Your task to perform on an android device: turn off notifications settings in the gmail app Image 0: 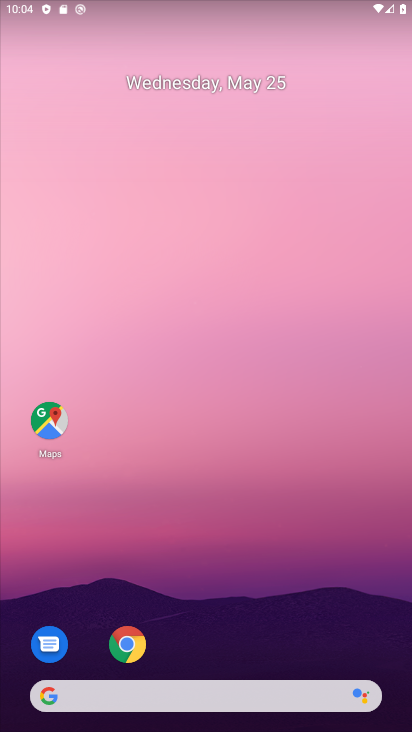
Step 0: drag from (234, 618) to (307, 164)
Your task to perform on an android device: turn off notifications settings in the gmail app Image 1: 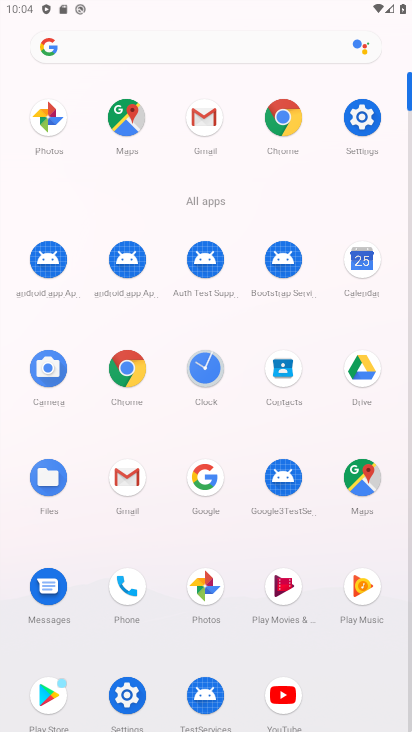
Step 1: click (208, 112)
Your task to perform on an android device: turn off notifications settings in the gmail app Image 2: 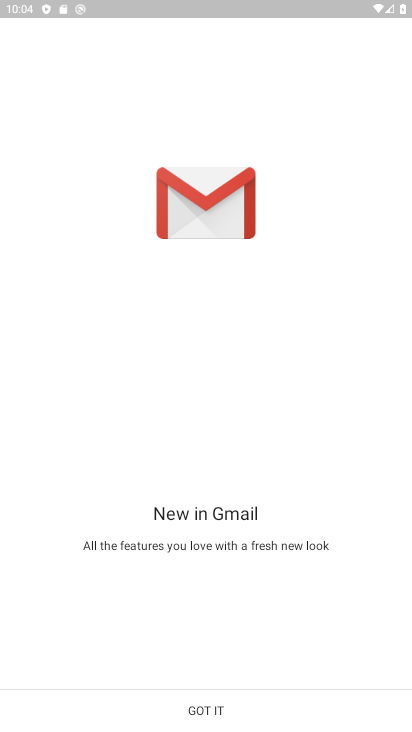
Step 2: click (212, 713)
Your task to perform on an android device: turn off notifications settings in the gmail app Image 3: 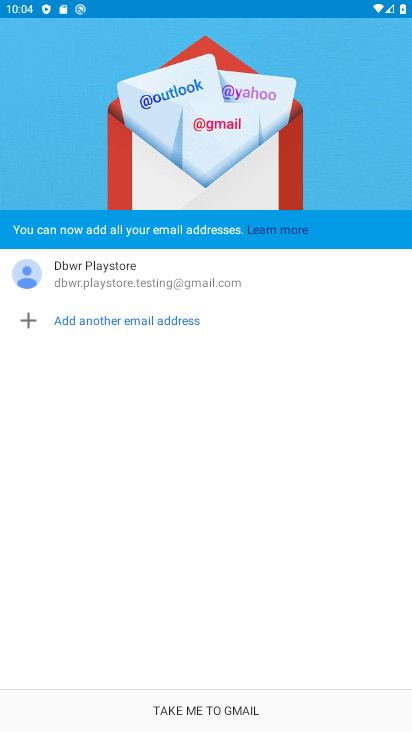
Step 3: click (212, 713)
Your task to perform on an android device: turn off notifications settings in the gmail app Image 4: 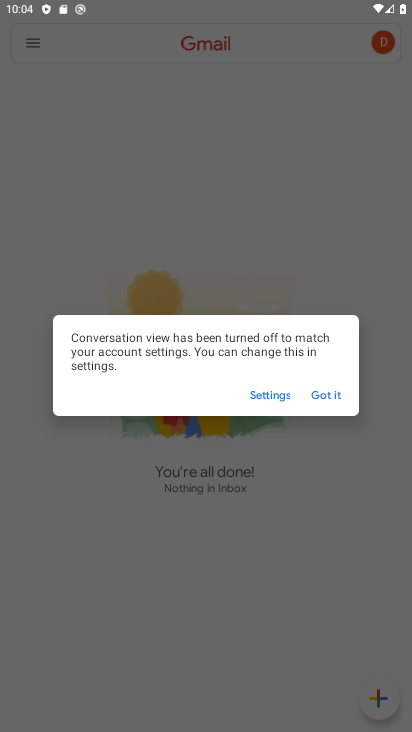
Step 4: click (334, 396)
Your task to perform on an android device: turn off notifications settings in the gmail app Image 5: 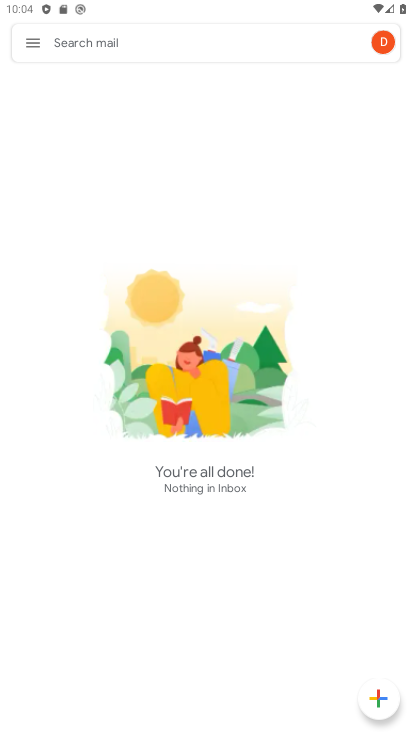
Step 5: click (36, 43)
Your task to perform on an android device: turn off notifications settings in the gmail app Image 6: 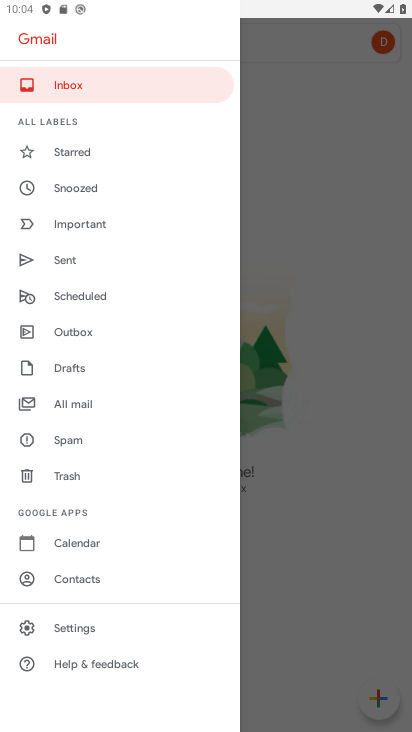
Step 6: click (86, 622)
Your task to perform on an android device: turn off notifications settings in the gmail app Image 7: 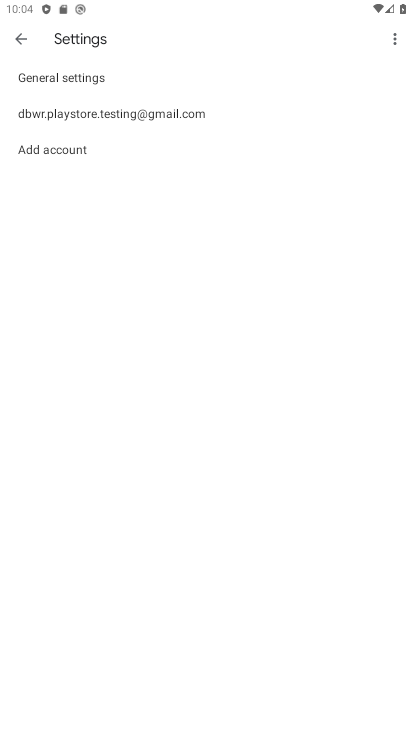
Step 7: click (102, 107)
Your task to perform on an android device: turn off notifications settings in the gmail app Image 8: 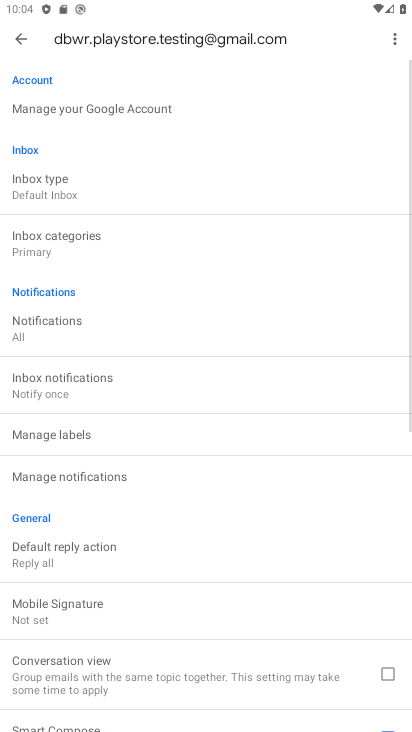
Step 8: click (58, 332)
Your task to perform on an android device: turn off notifications settings in the gmail app Image 9: 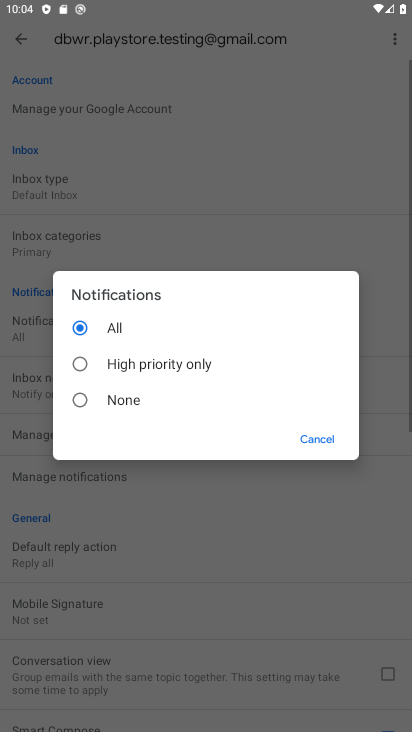
Step 9: click (86, 404)
Your task to perform on an android device: turn off notifications settings in the gmail app Image 10: 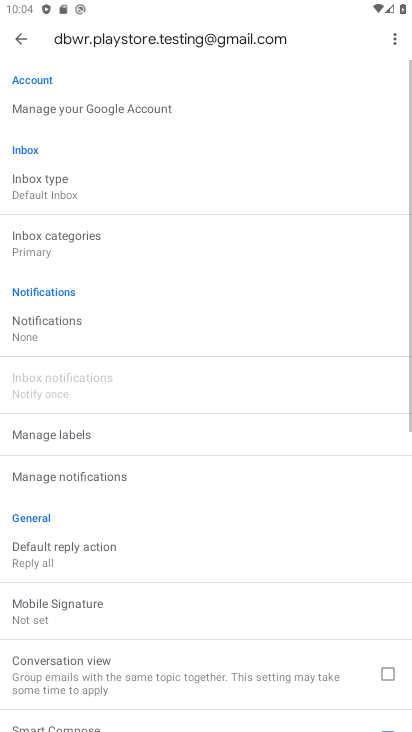
Step 10: task complete